Your task to perform on an android device: turn on airplane mode Image 0: 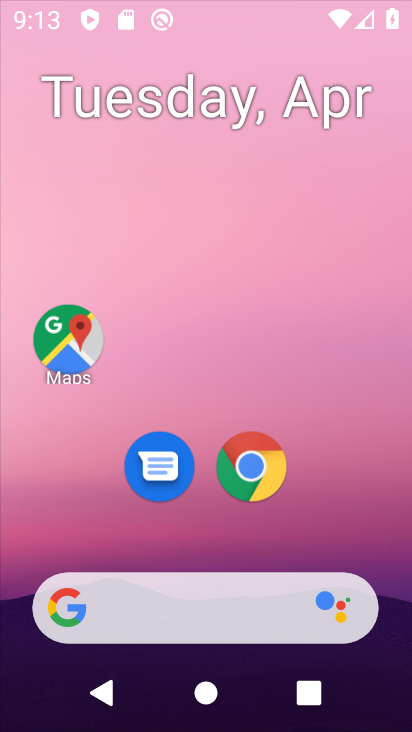
Step 0: drag from (241, 523) to (282, 151)
Your task to perform on an android device: turn on airplane mode Image 1: 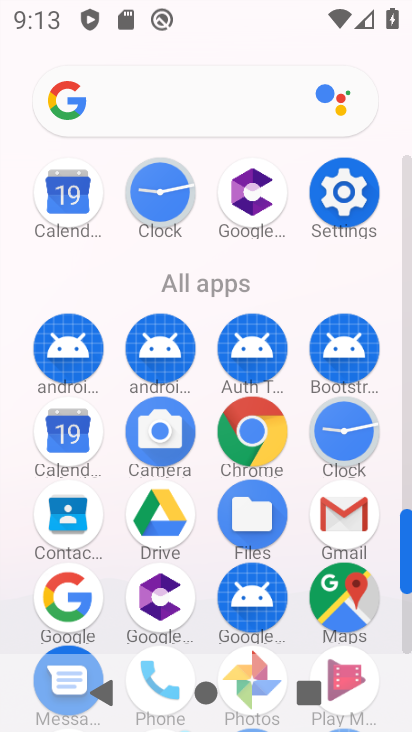
Step 1: click (354, 200)
Your task to perform on an android device: turn on airplane mode Image 2: 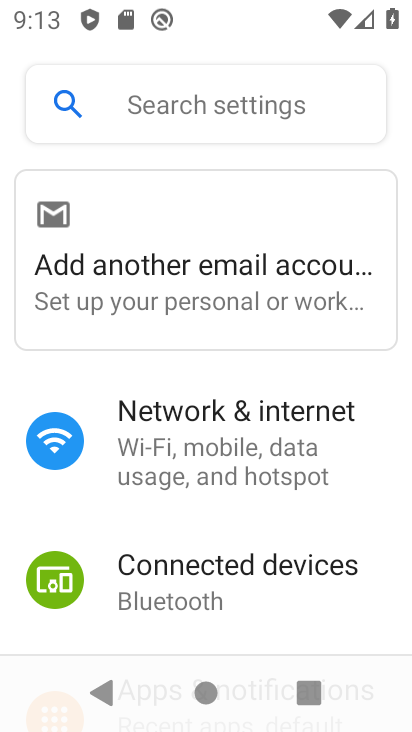
Step 2: click (229, 426)
Your task to perform on an android device: turn on airplane mode Image 3: 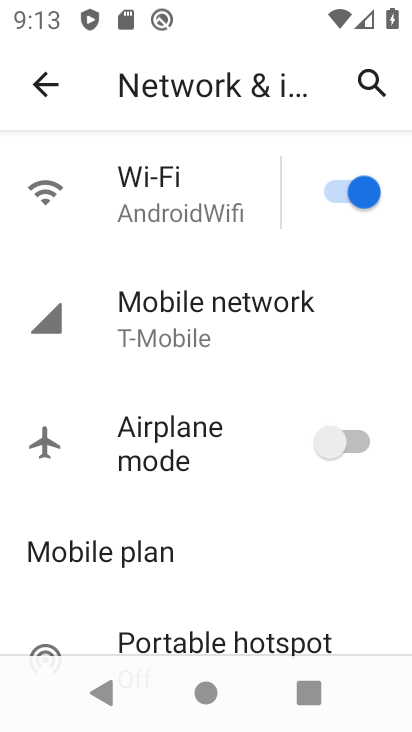
Step 3: click (229, 426)
Your task to perform on an android device: turn on airplane mode Image 4: 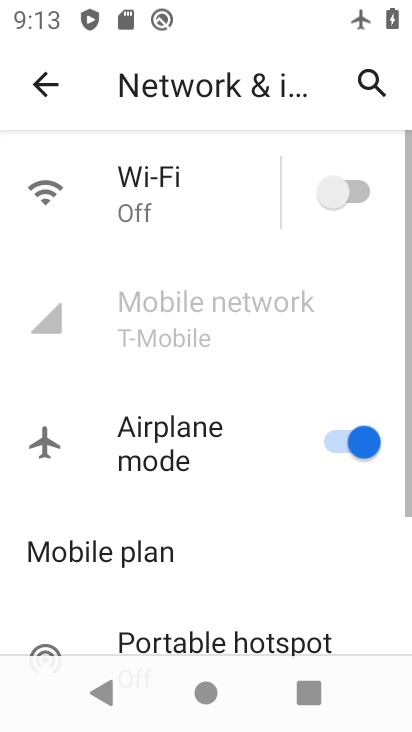
Step 4: task complete